Your task to perform on an android device: Open CNN.com Image 0: 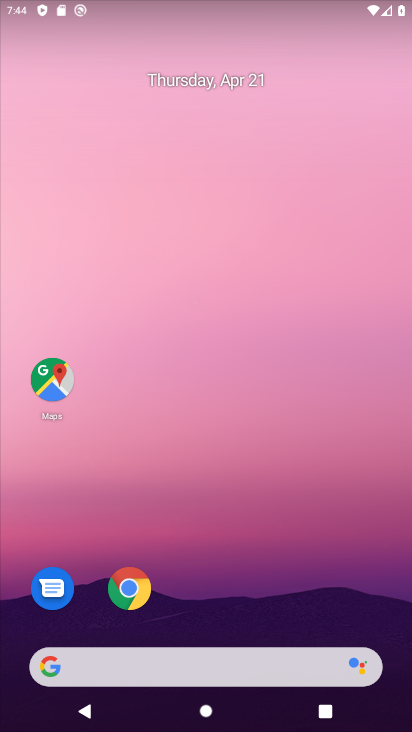
Step 0: click (125, 595)
Your task to perform on an android device: Open CNN.com Image 1: 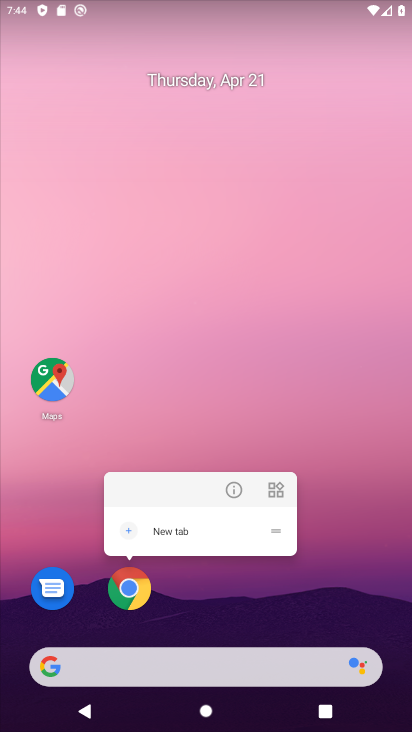
Step 1: click (144, 585)
Your task to perform on an android device: Open CNN.com Image 2: 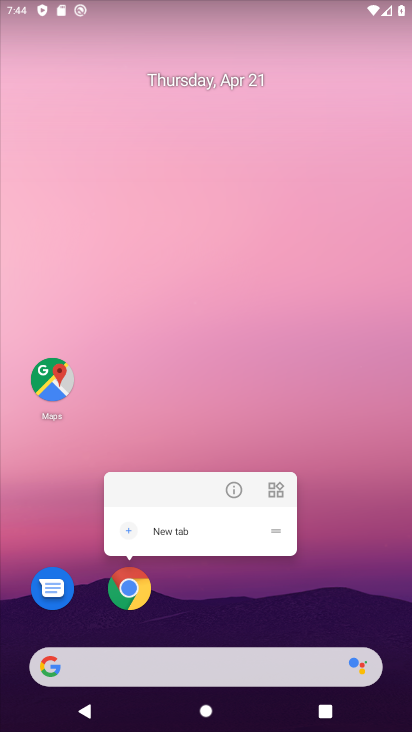
Step 2: click (108, 578)
Your task to perform on an android device: Open CNN.com Image 3: 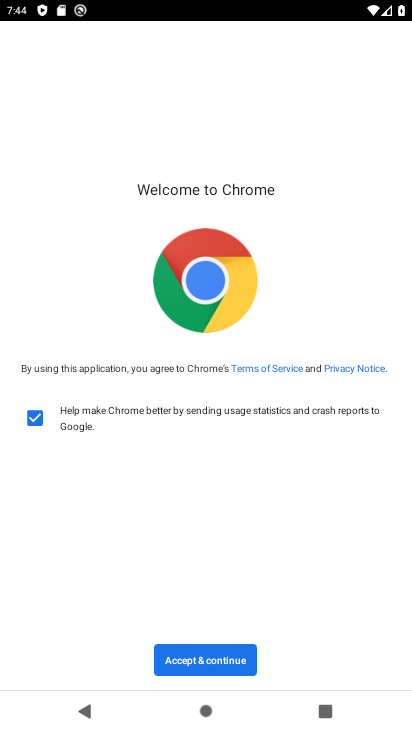
Step 3: click (186, 671)
Your task to perform on an android device: Open CNN.com Image 4: 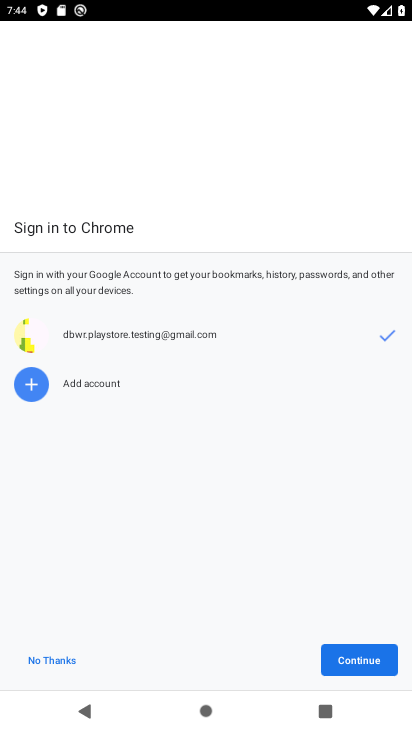
Step 4: click (353, 660)
Your task to perform on an android device: Open CNN.com Image 5: 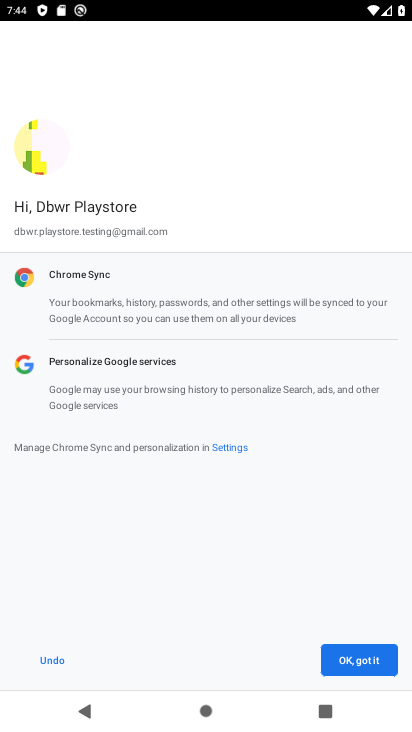
Step 5: click (353, 660)
Your task to perform on an android device: Open CNN.com Image 6: 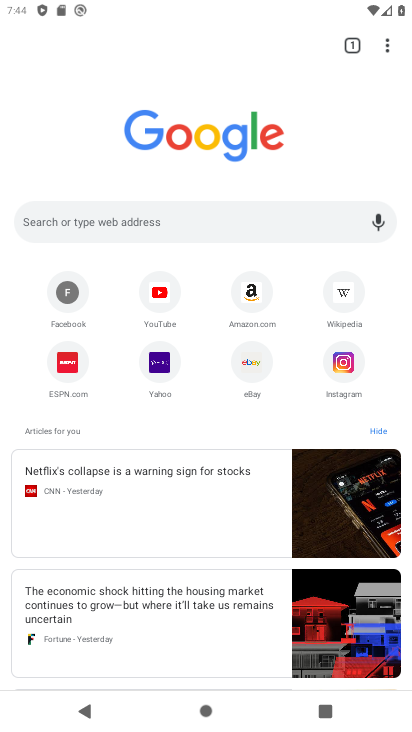
Step 6: click (231, 223)
Your task to perform on an android device: Open CNN.com Image 7: 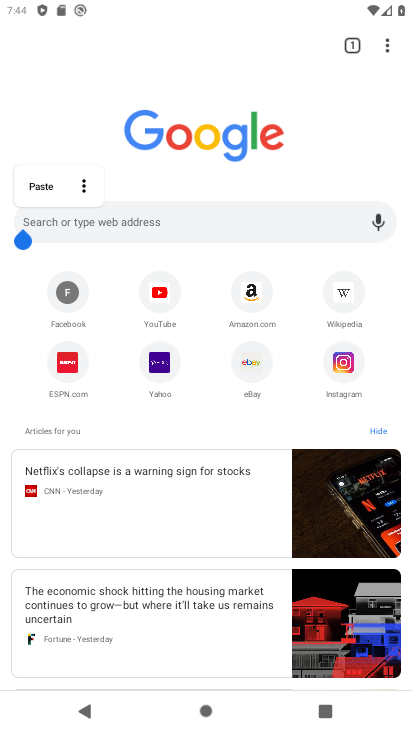
Step 7: type "cnn"
Your task to perform on an android device: Open CNN.com Image 8: 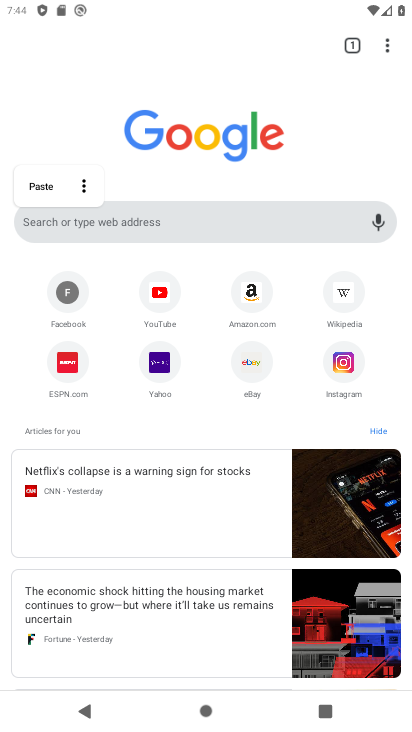
Step 8: click (227, 226)
Your task to perform on an android device: Open CNN.com Image 9: 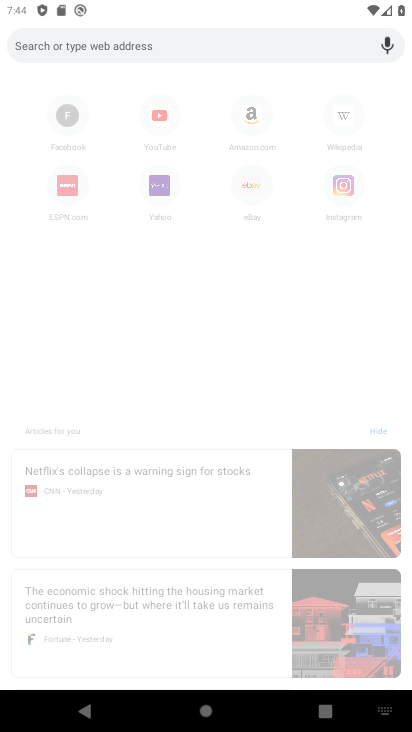
Step 9: type "cnn"
Your task to perform on an android device: Open CNN.com Image 10: 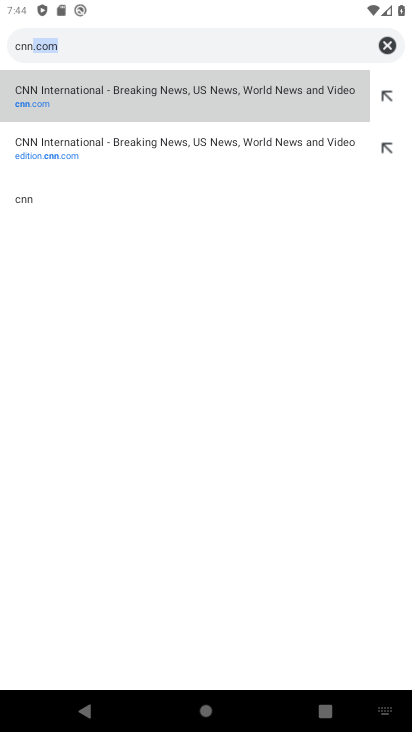
Step 10: click (38, 102)
Your task to perform on an android device: Open CNN.com Image 11: 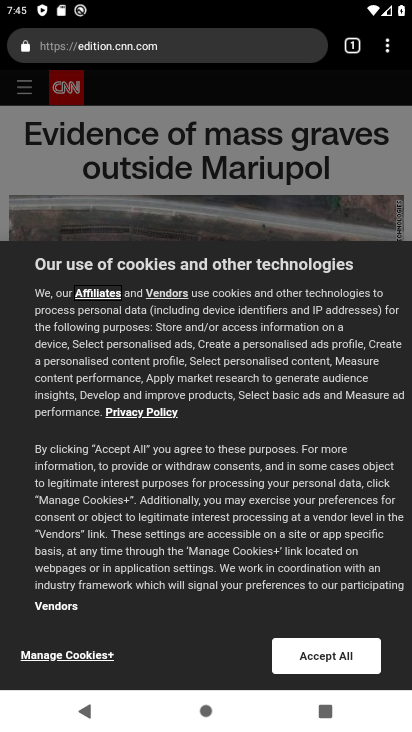
Step 11: task complete